Your task to perform on an android device: turn on data saver in the chrome app Image 0: 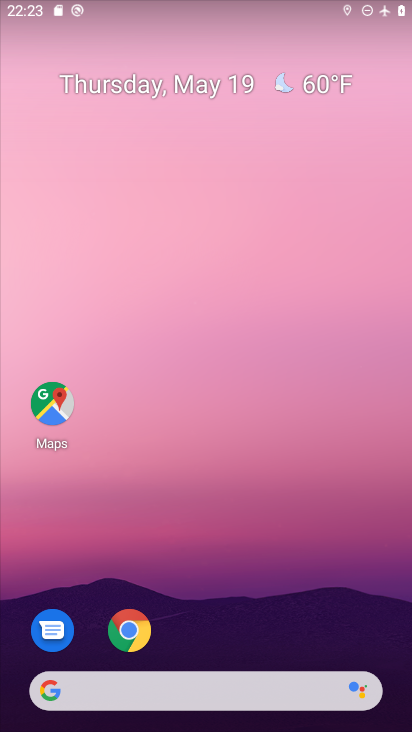
Step 0: click (129, 631)
Your task to perform on an android device: turn on data saver in the chrome app Image 1: 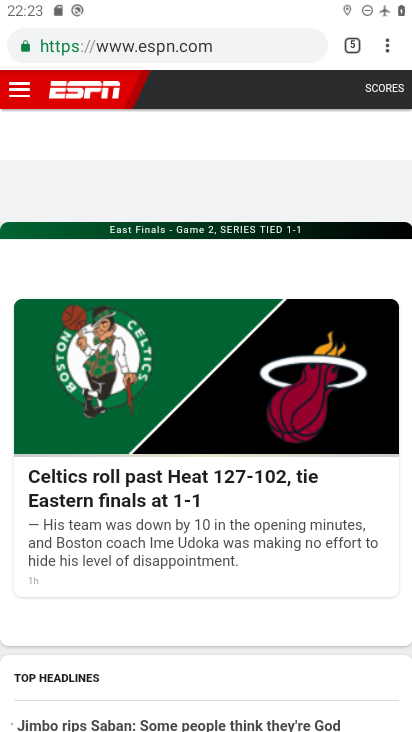
Step 1: click (386, 38)
Your task to perform on an android device: turn on data saver in the chrome app Image 2: 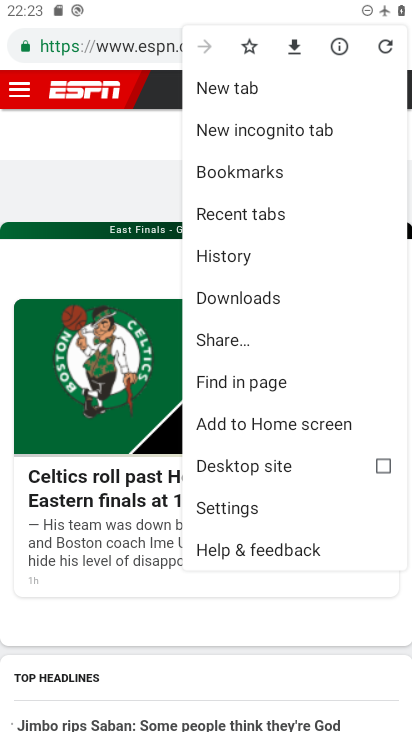
Step 2: click (245, 505)
Your task to perform on an android device: turn on data saver in the chrome app Image 3: 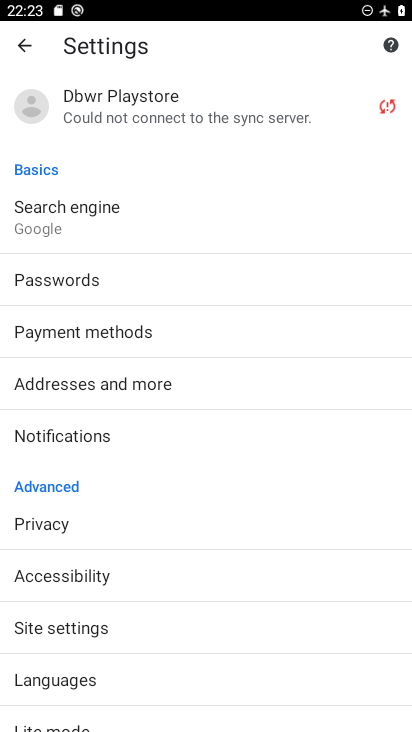
Step 3: drag from (245, 505) to (239, 151)
Your task to perform on an android device: turn on data saver in the chrome app Image 4: 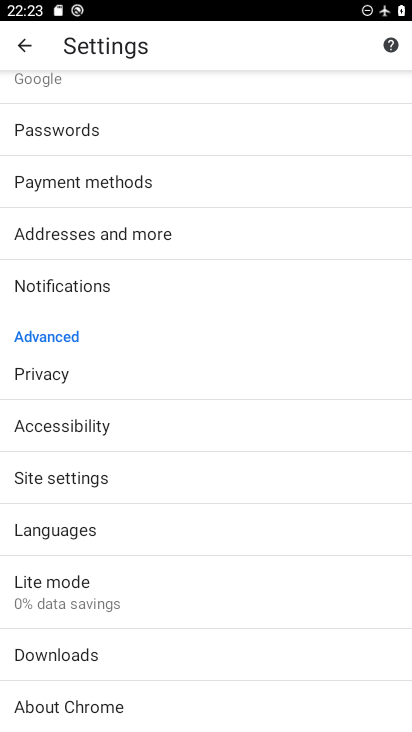
Step 4: click (73, 586)
Your task to perform on an android device: turn on data saver in the chrome app Image 5: 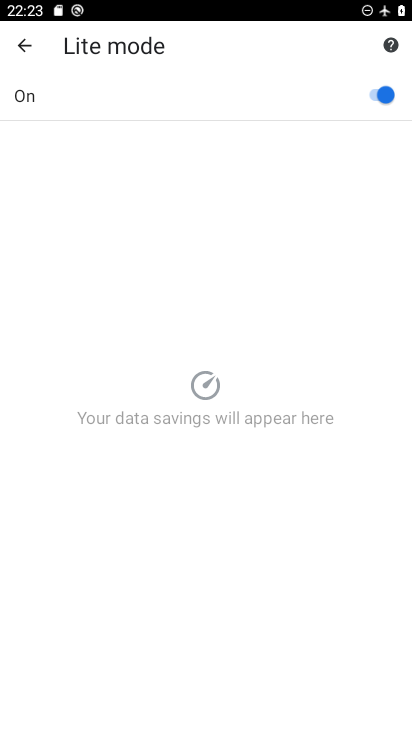
Step 5: task complete